Your task to perform on an android device: toggle pop-ups in chrome Image 0: 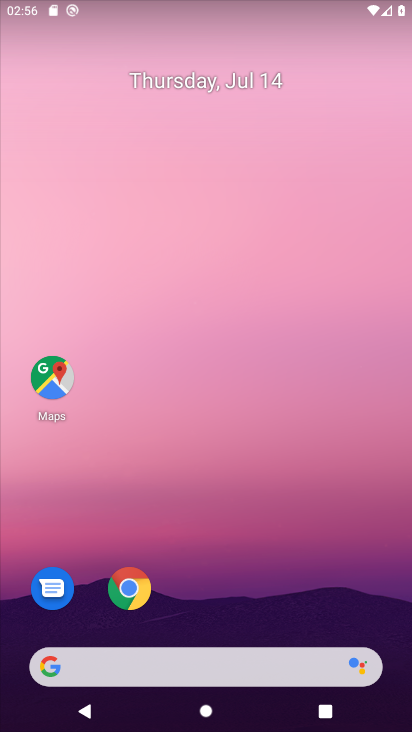
Step 0: click (130, 596)
Your task to perform on an android device: toggle pop-ups in chrome Image 1: 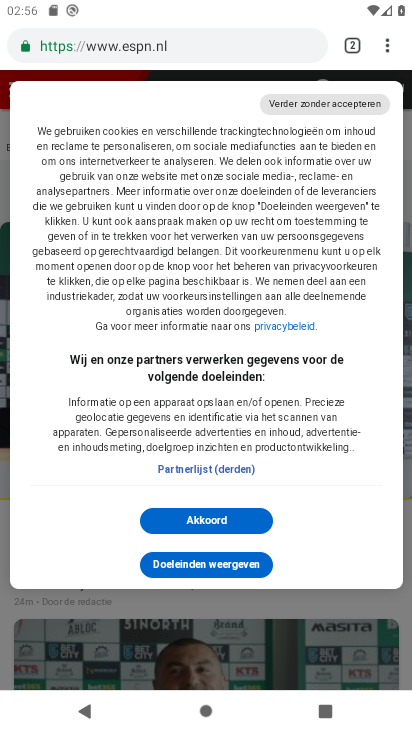
Step 1: click (383, 40)
Your task to perform on an android device: toggle pop-ups in chrome Image 2: 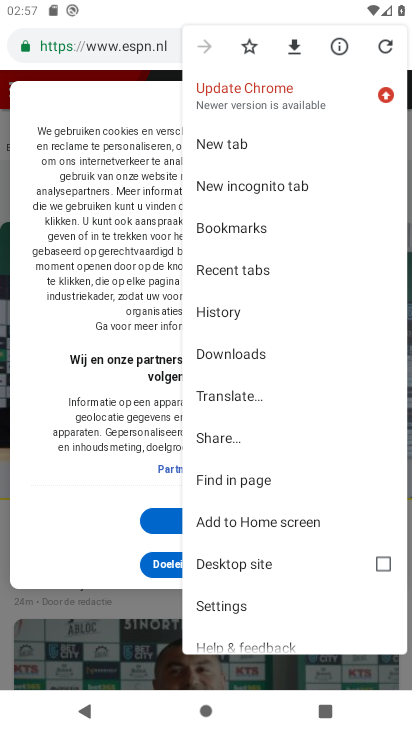
Step 2: click (250, 606)
Your task to perform on an android device: toggle pop-ups in chrome Image 3: 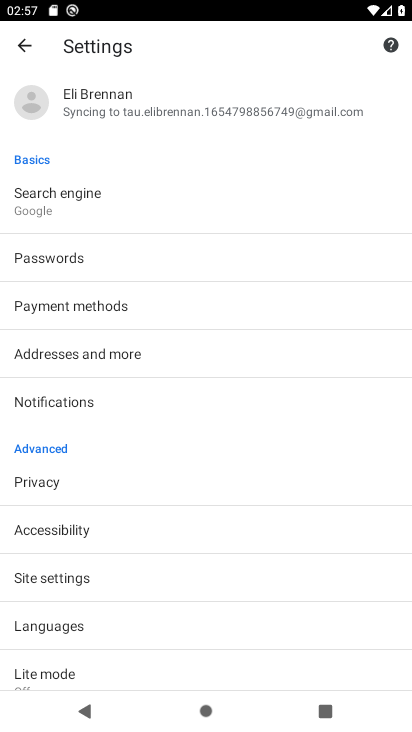
Step 3: click (144, 564)
Your task to perform on an android device: toggle pop-ups in chrome Image 4: 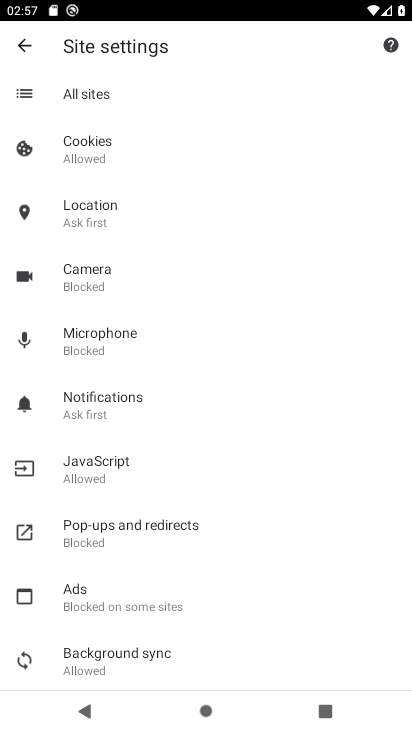
Step 4: click (137, 543)
Your task to perform on an android device: toggle pop-ups in chrome Image 5: 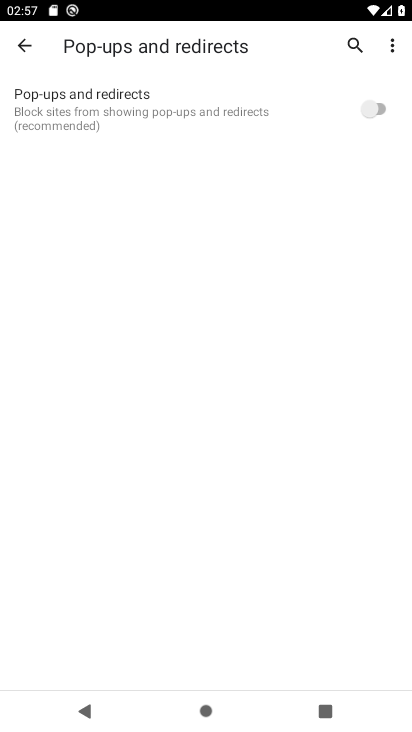
Step 5: click (371, 116)
Your task to perform on an android device: toggle pop-ups in chrome Image 6: 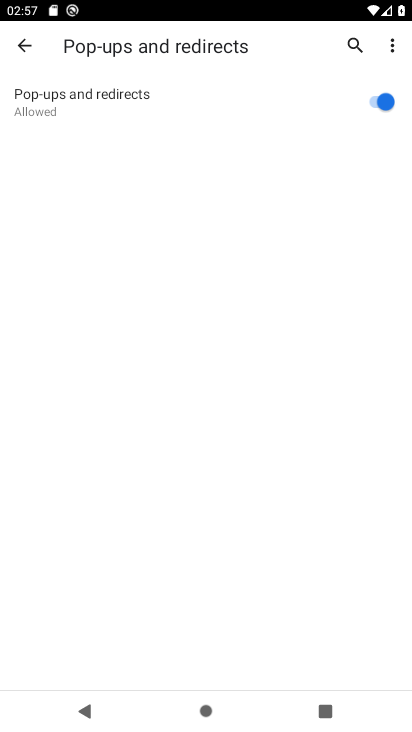
Step 6: task complete